Your task to perform on an android device: toggle javascript in the chrome app Image 0: 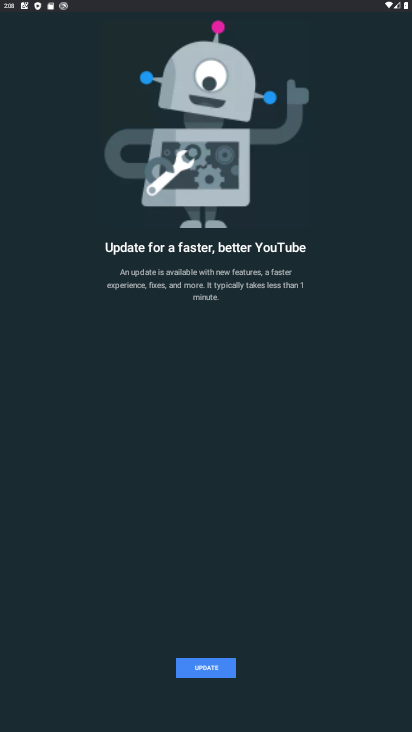
Step 0: press home button
Your task to perform on an android device: toggle javascript in the chrome app Image 1: 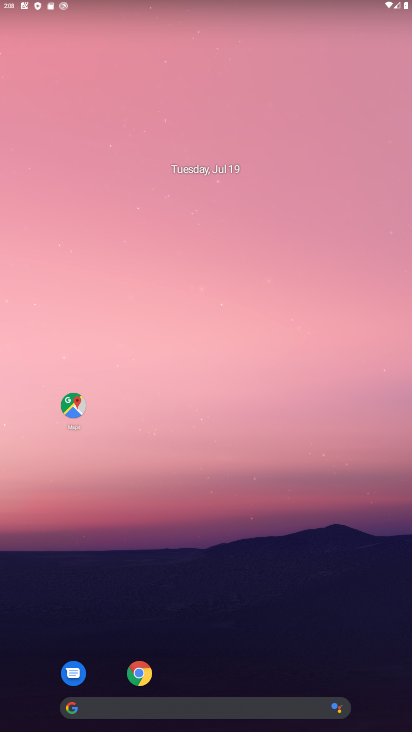
Step 1: click (138, 674)
Your task to perform on an android device: toggle javascript in the chrome app Image 2: 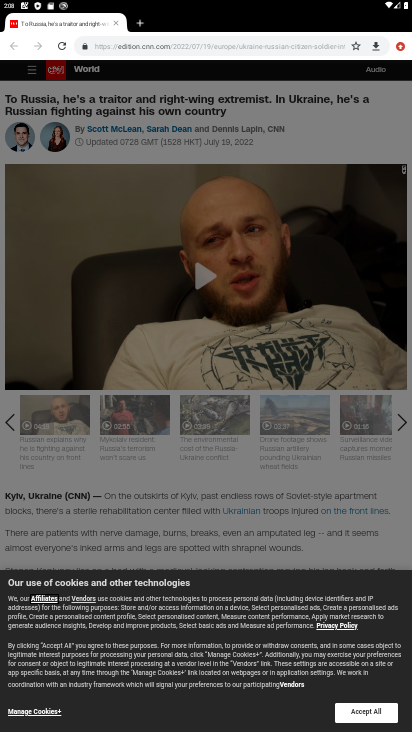
Step 2: click (404, 48)
Your task to perform on an android device: toggle javascript in the chrome app Image 3: 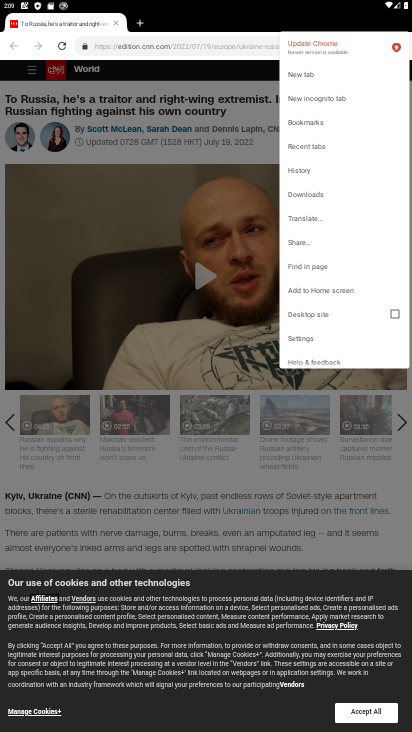
Step 3: click (309, 337)
Your task to perform on an android device: toggle javascript in the chrome app Image 4: 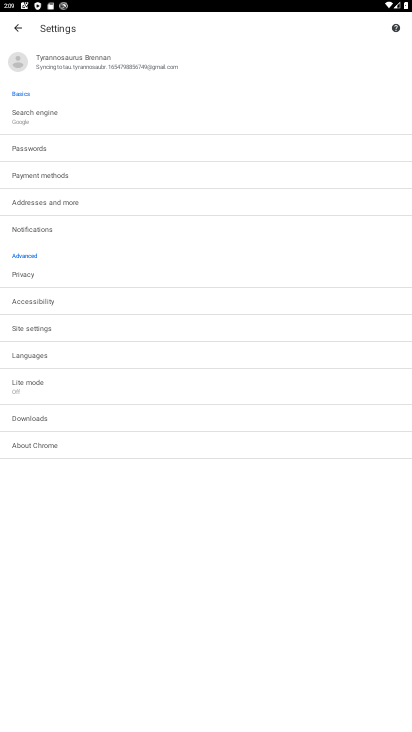
Step 4: click (39, 327)
Your task to perform on an android device: toggle javascript in the chrome app Image 5: 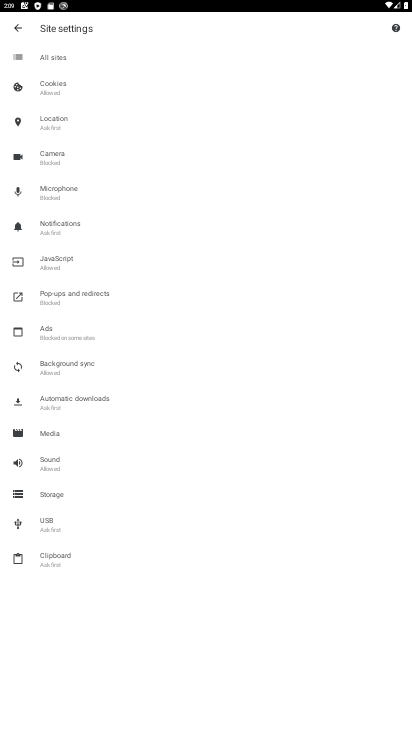
Step 5: click (58, 260)
Your task to perform on an android device: toggle javascript in the chrome app Image 6: 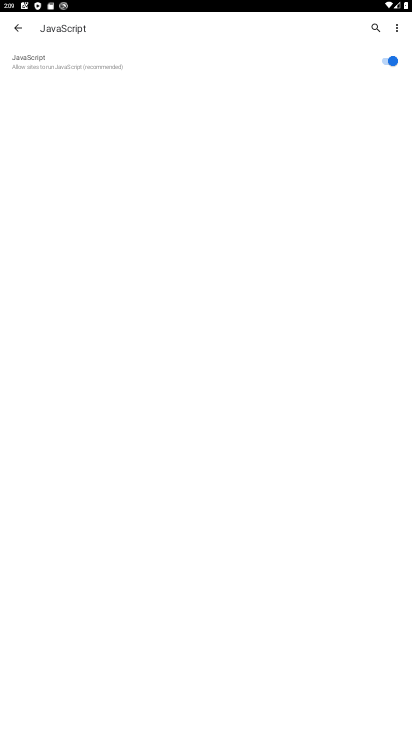
Step 6: click (385, 65)
Your task to perform on an android device: toggle javascript in the chrome app Image 7: 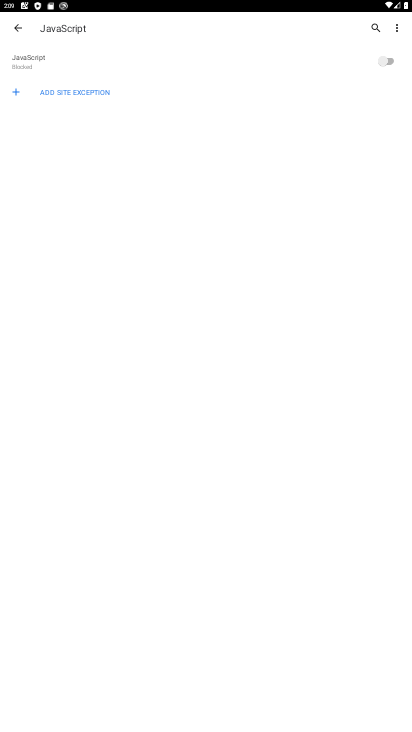
Step 7: task complete